Your task to perform on an android device: Do I have any events this weekend? Image 0: 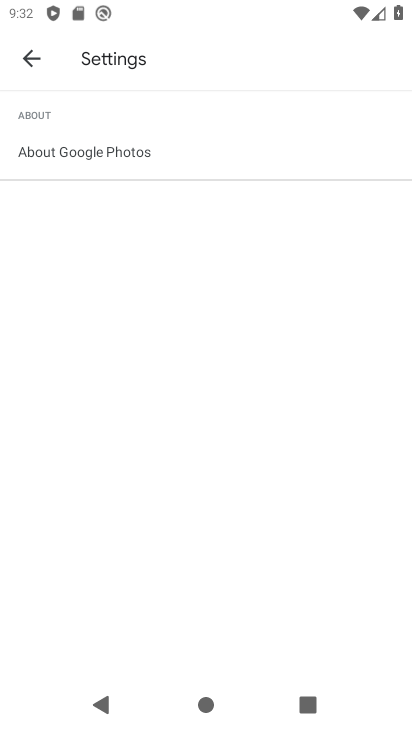
Step 0: press home button
Your task to perform on an android device: Do I have any events this weekend? Image 1: 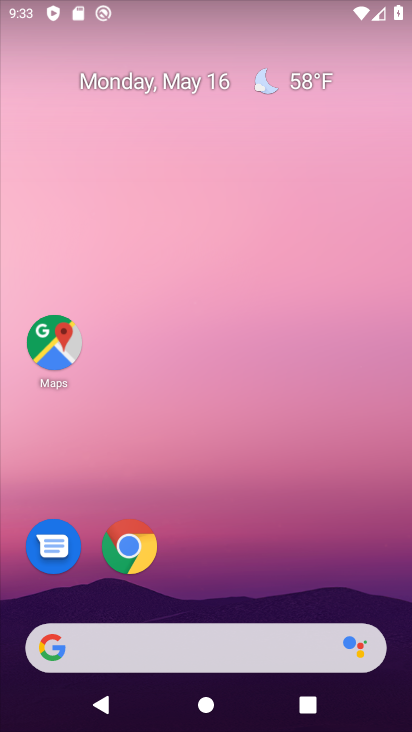
Step 1: drag from (250, 573) to (235, 143)
Your task to perform on an android device: Do I have any events this weekend? Image 2: 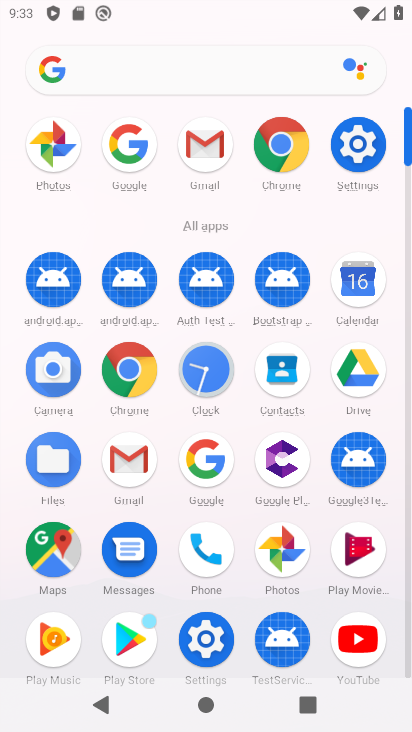
Step 2: click (360, 281)
Your task to perform on an android device: Do I have any events this weekend? Image 3: 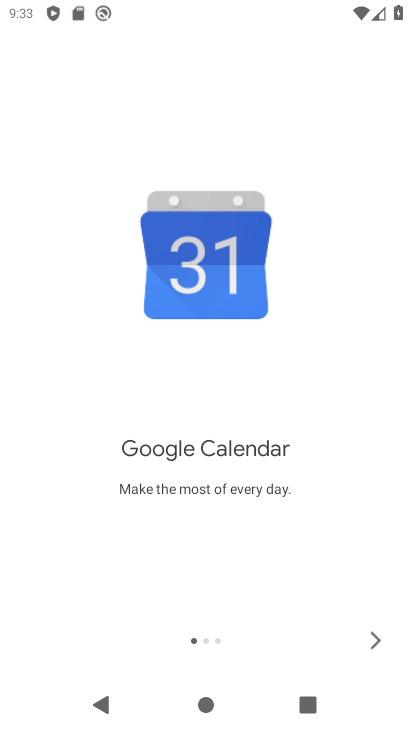
Step 3: click (374, 638)
Your task to perform on an android device: Do I have any events this weekend? Image 4: 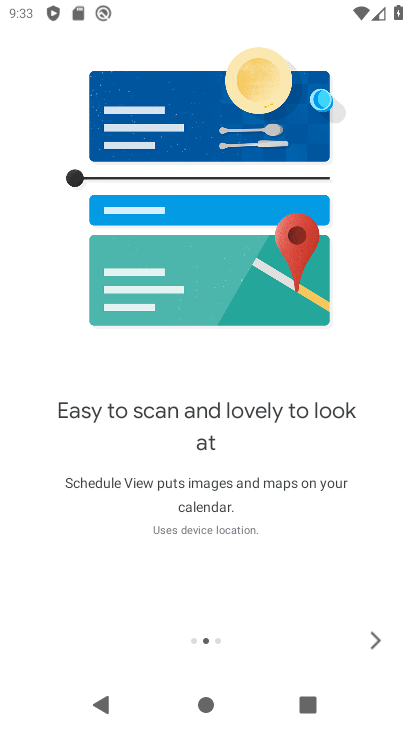
Step 4: click (374, 638)
Your task to perform on an android device: Do I have any events this weekend? Image 5: 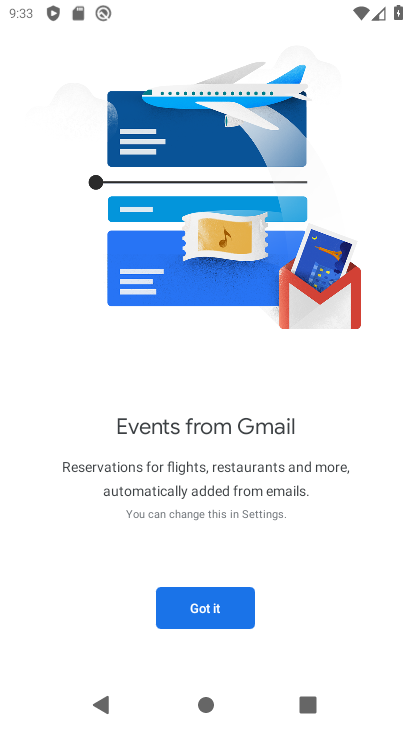
Step 5: click (198, 605)
Your task to perform on an android device: Do I have any events this weekend? Image 6: 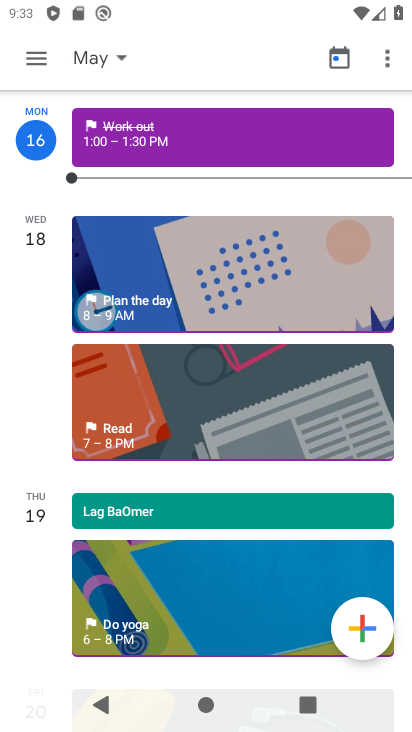
Step 6: click (124, 58)
Your task to perform on an android device: Do I have any events this weekend? Image 7: 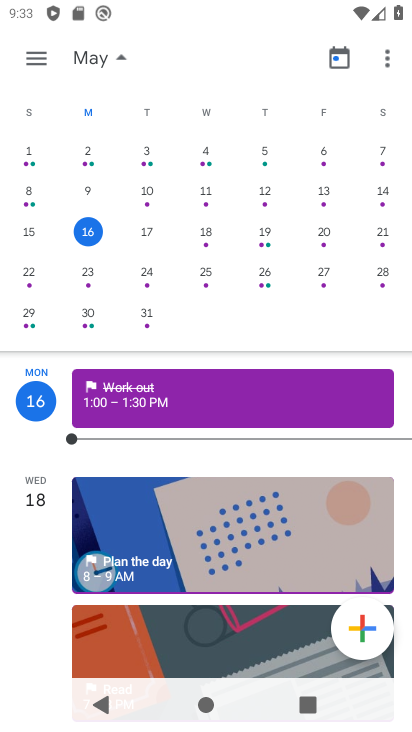
Step 7: click (379, 233)
Your task to perform on an android device: Do I have any events this weekend? Image 8: 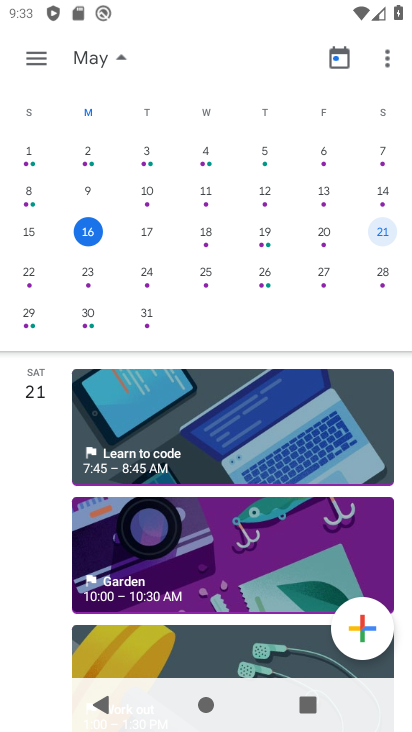
Step 8: click (37, 62)
Your task to perform on an android device: Do I have any events this weekend? Image 9: 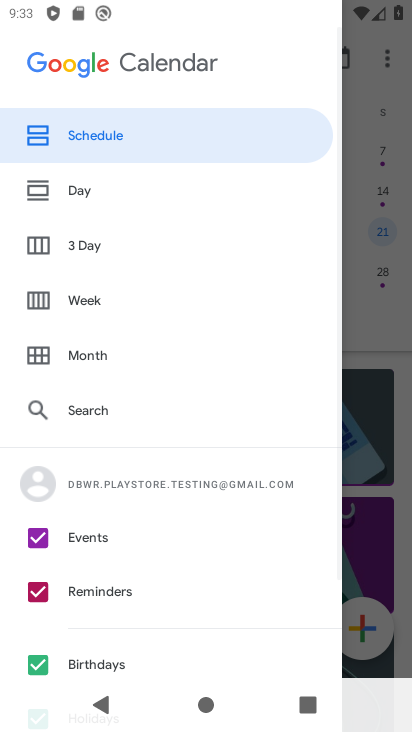
Step 9: click (87, 308)
Your task to perform on an android device: Do I have any events this weekend? Image 10: 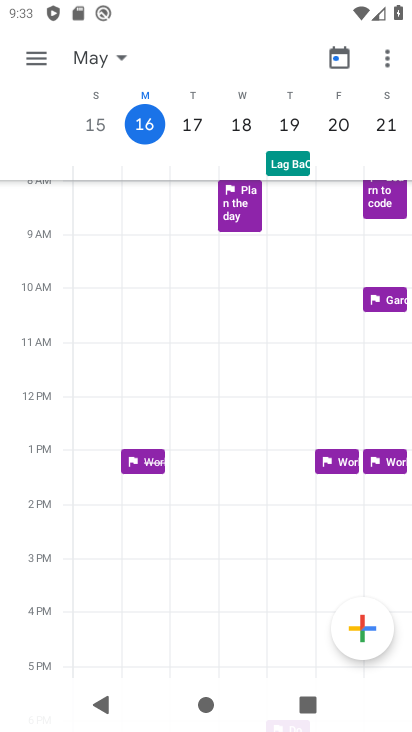
Step 10: task complete